Your task to perform on an android device: Check the news Image 0: 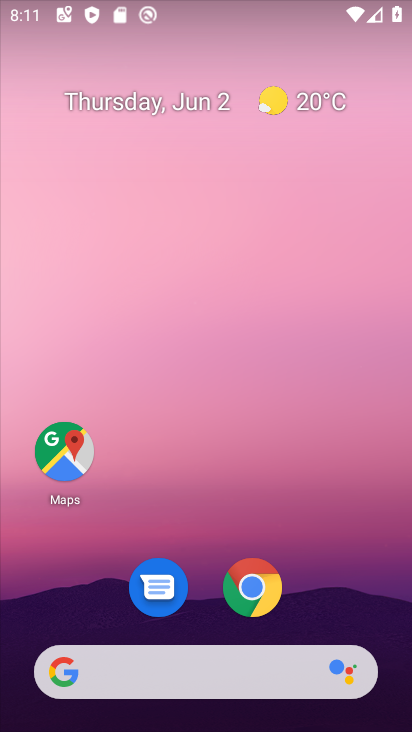
Step 0: click (343, 99)
Your task to perform on an android device: Check the news Image 1: 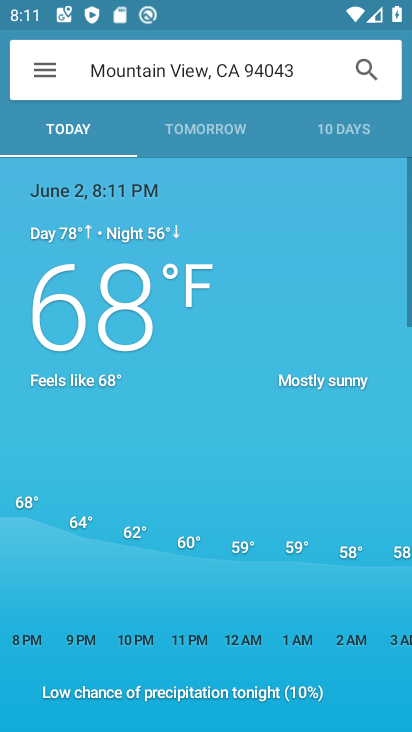
Step 1: press home button
Your task to perform on an android device: Check the news Image 2: 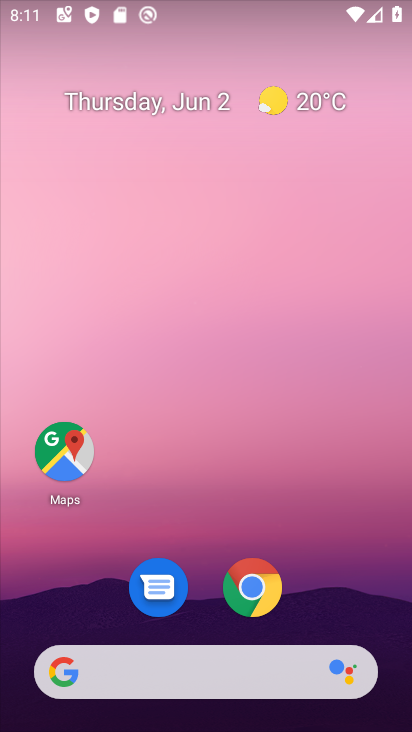
Step 2: click (188, 670)
Your task to perform on an android device: Check the news Image 3: 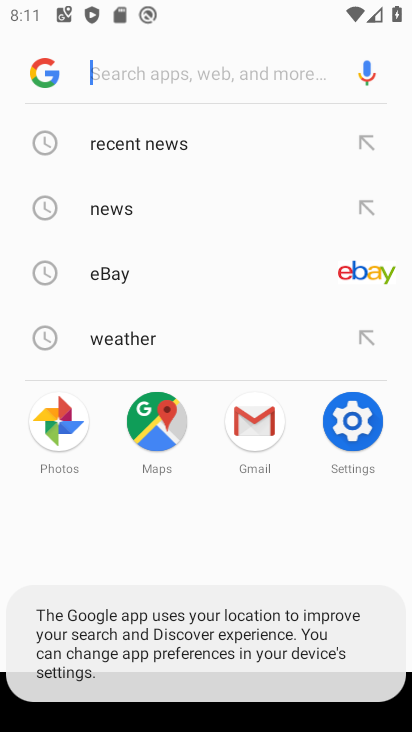
Step 3: click (116, 210)
Your task to perform on an android device: Check the news Image 4: 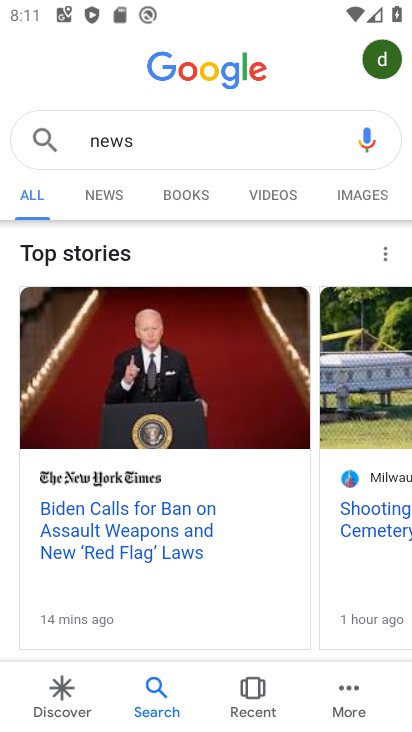
Step 4: task complete